Your task to perform on an android device: turn vacation reply on in the gmail app Image 0: 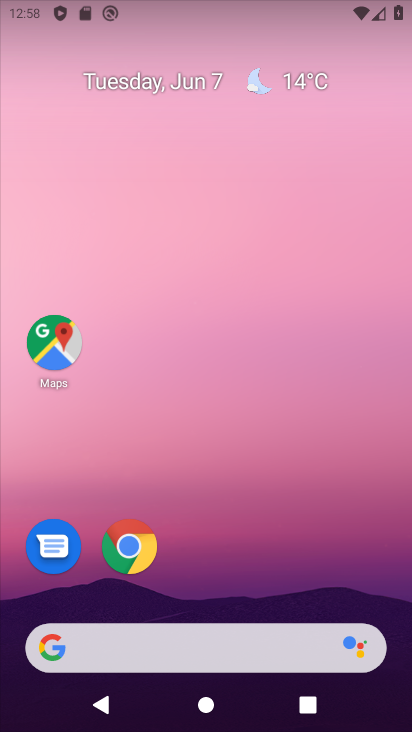
Step 0: drag from (230, 619) to (201, 84)
Your task to perform on an android device: turn vacation reply on in the gmail app Image 1: 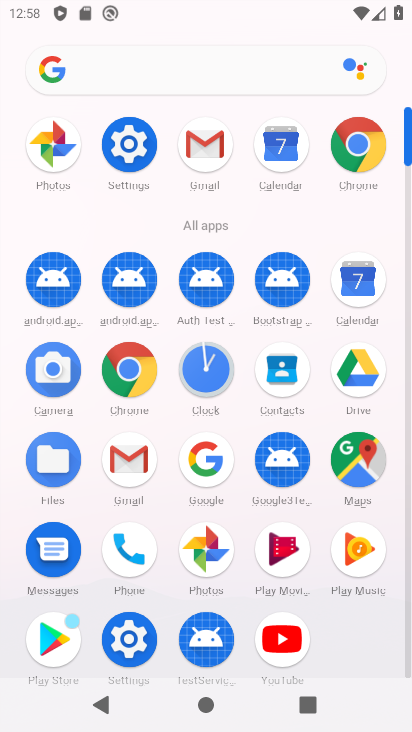
Step 1: click (141, 464)
Your task to perform on an android device: turn vacation reply on in the gmail app Image 2: 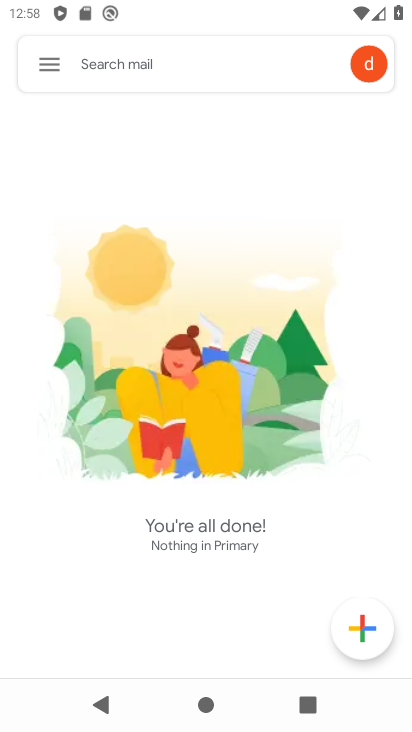
Step 2: click (58, 61)
Your task to perform on an android device: turn vacation reply on in the gmail app Image 3: 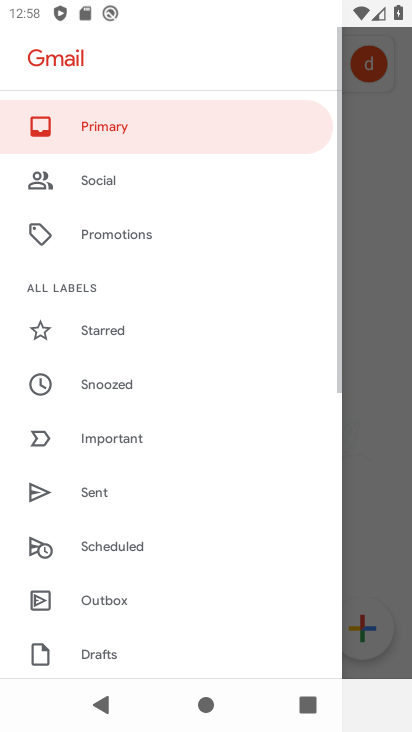
Step 3: drag from (199, 477) to (171, 3)
Your task to perform on an android device: turn vacation reply on in the gmail app Image 4: 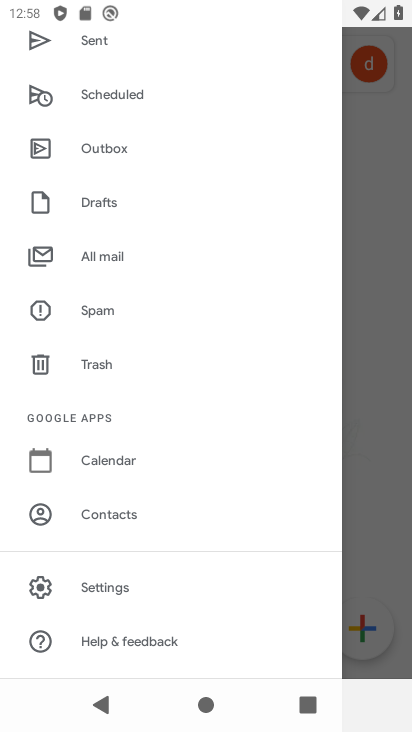
Step 4: click (146, 570)
Your task to perform on an android device: turn vacation reply on in the gmail app Image 5: 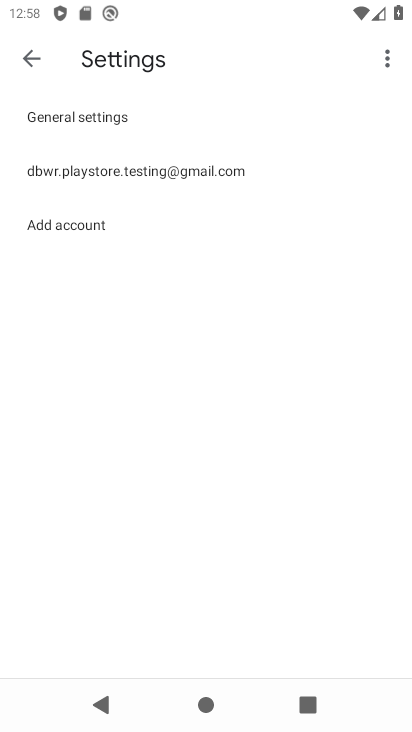
Step 5: click (64, 175)
Your task to perform on an android device: turn vacation reply on in the gmail app Image 6: 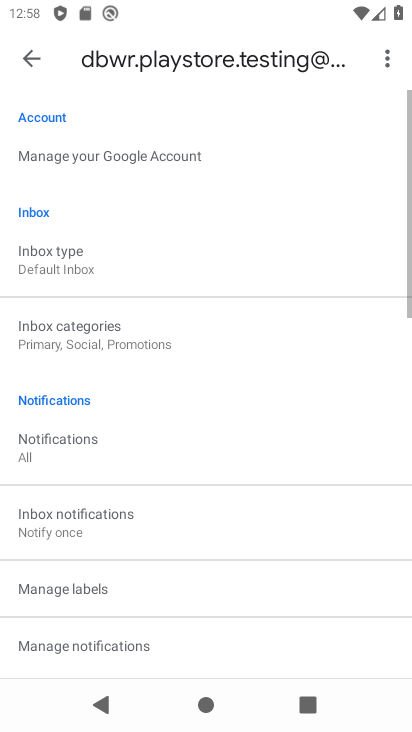
Step 6: drag from (94, 468) to (76, 137)
Your task to perform on an android device: turn vacation reply on in the gmail app Image 7: 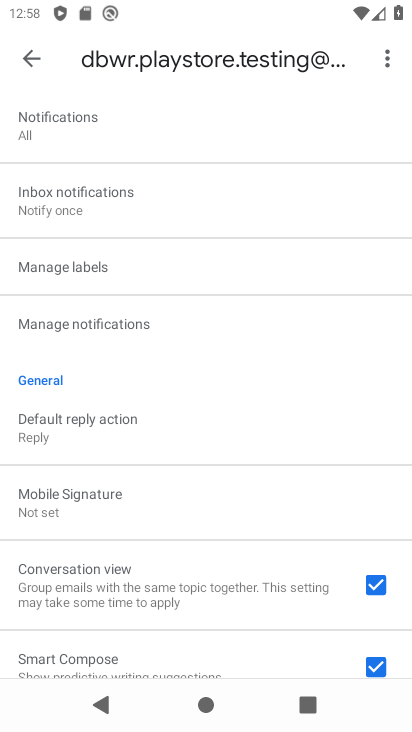
Step 7: drag from (76, 592) to (45, 213)
Your task to perform on an android device: turn vacation reply on in the gmail app Image 8: 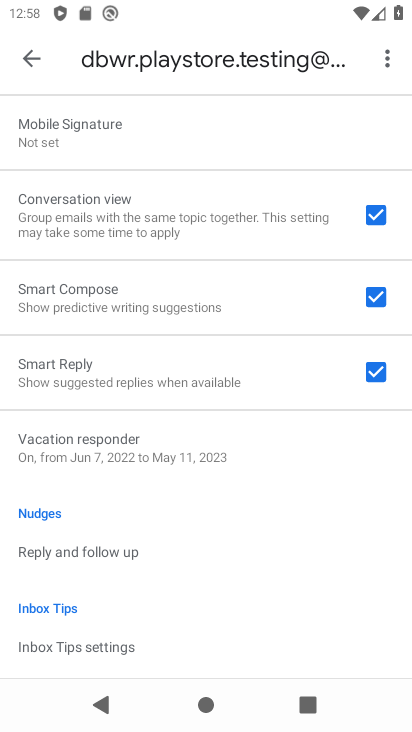
Step 8: click (82, 451)
Your task to perform on an android device: turn vacation reply on in the gmail app Image 9: 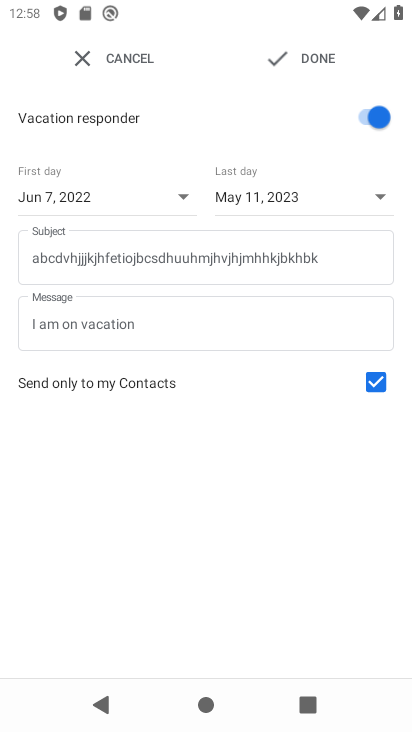
Step 9: click (253, 66)
Your task to perform on an android device: turn vacation reply on in the gmail app Image 10: 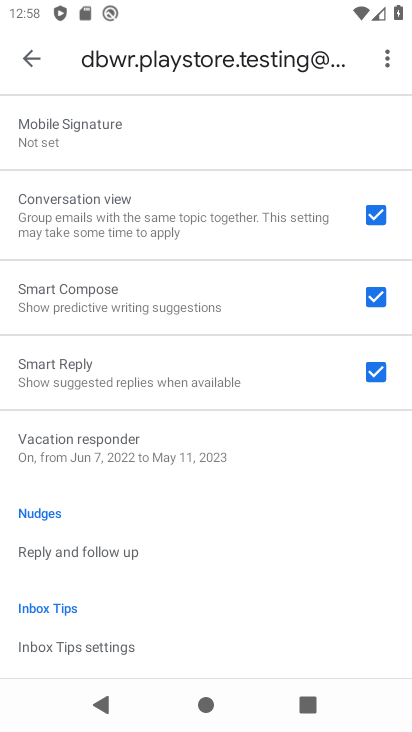
Step 10: task complete